Your task to perform on an android device: turn off translation in the chrome app Image 0: 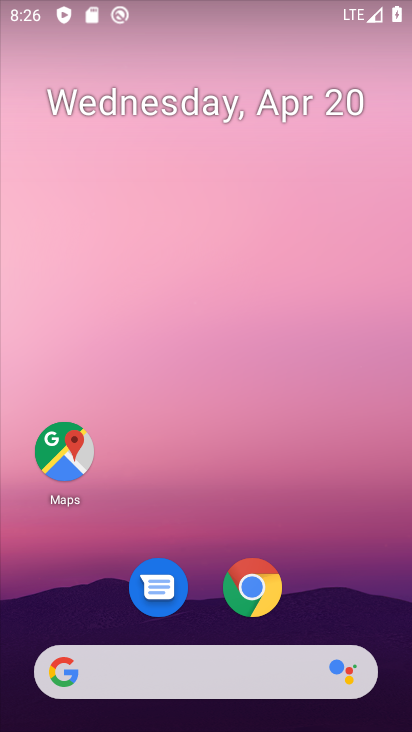
Step 0: drag from (363, 579) to (355, 185)
Your task to perform on an android device: turn off translation in the chrome app Image 1: 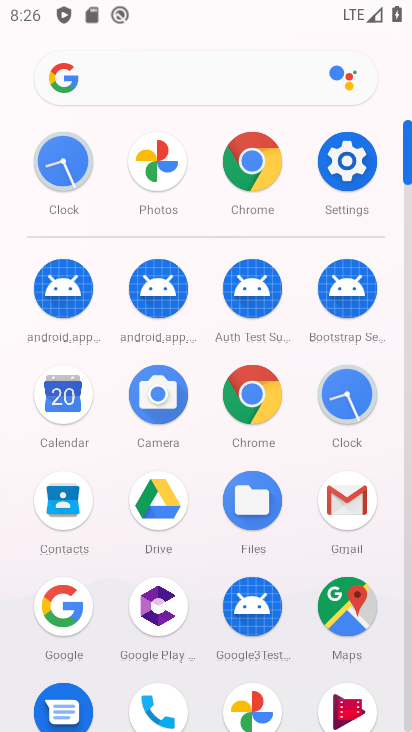
Step 1: click (261, 400)
Your task to perform on an android device: turn off translation in the chrome app Image 2: 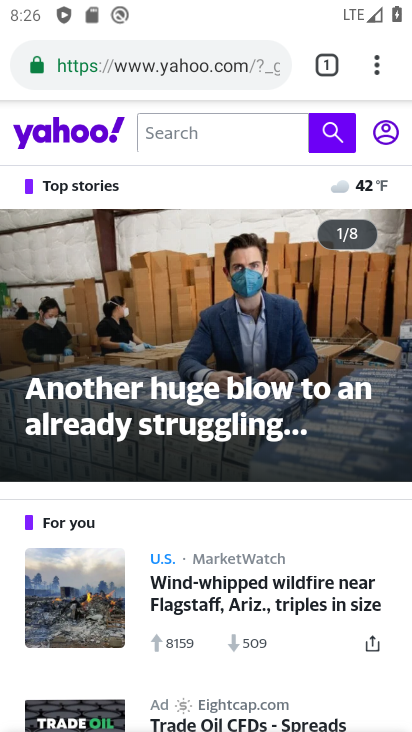
Step 2: click (379, 63)
Your task to perform on an android device: turn off translation in the chrome app Image 3: 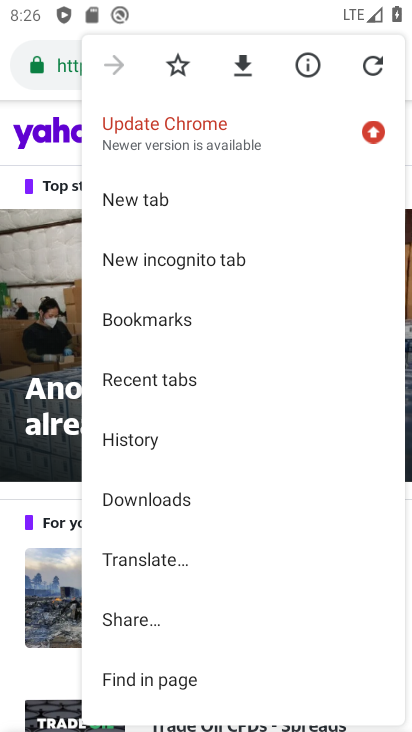
Step 3: drag from (341, 549) to (328, 402)
Your task to perform on an android device: turn off translation in the chrome app Image 4: 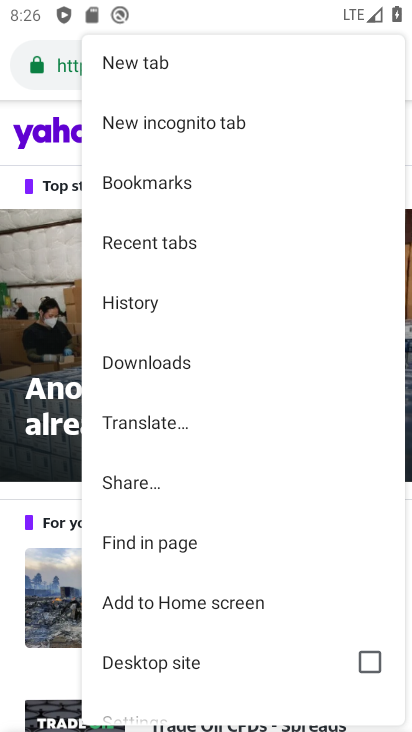
Step 4: drag from (327, 547) to (327, 408)
Your task to perform on an android device: turn off translation in the chrome app Image 5: 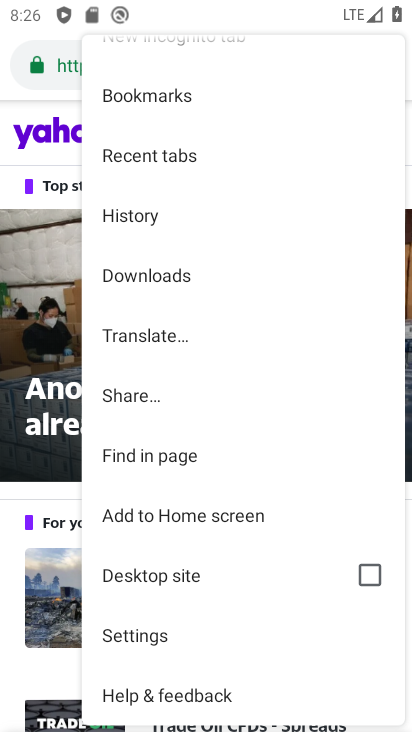
Step 5: click (170, 637)
Your task to perform on an android device: turn off translation in the chrome app Image 6: 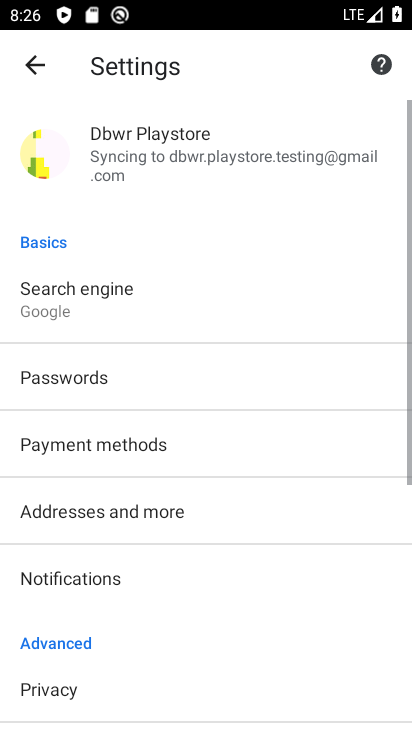
Step 6: drag from (312, 593) to (327, 475)
Your task to perform on an android device: turn off translation in the chrome app Image 7: 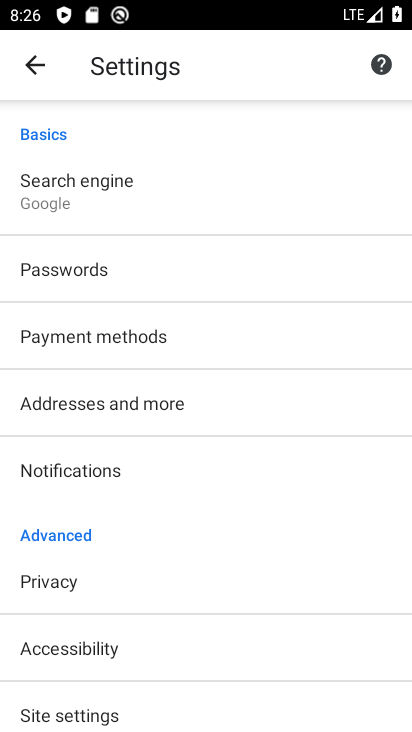
Step 7: drag from (331, 575) to (338, 464)
Your task to perform on an android device: turn off translation in the chrome app Image 8: 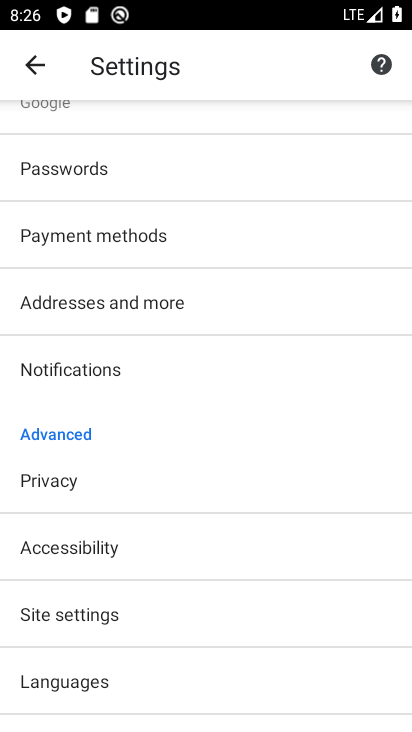
Step 8: drag from (356, 615) to (358, 481)
Your task to perform on an android device: turn off translation in the chrome app Image 9: 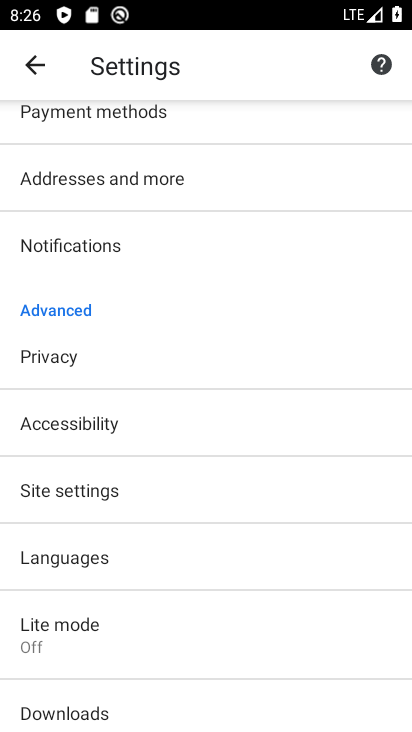
Step 9: drag from (350, 625) to (353, 492)
Your task to perform on an android device: turn off translation in the chrome app Image 10: 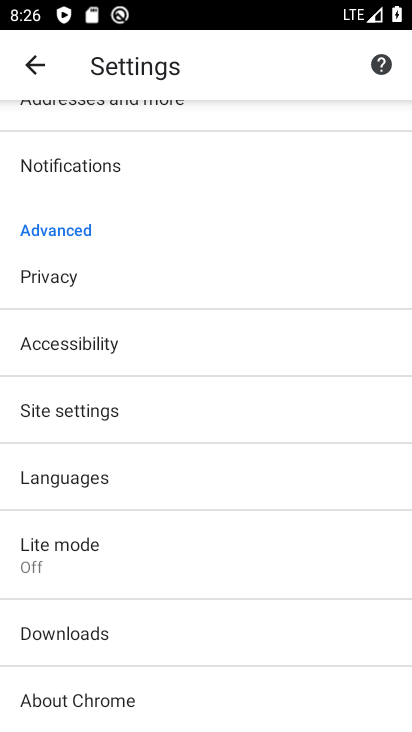
Step 10: drag from (345, 345) to (342, 428)
Your task to perform on an android device: turn off translation in the chrome app Image 11: 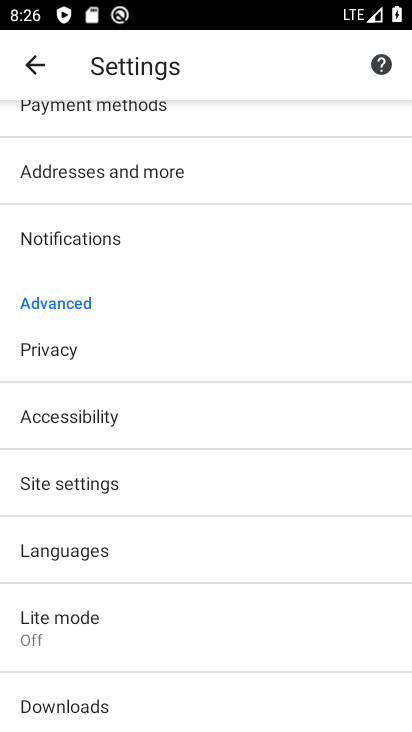
Step 11: click (263, 548)
Your task to perform on an android device: turn off translation in the chrome app Image 12: 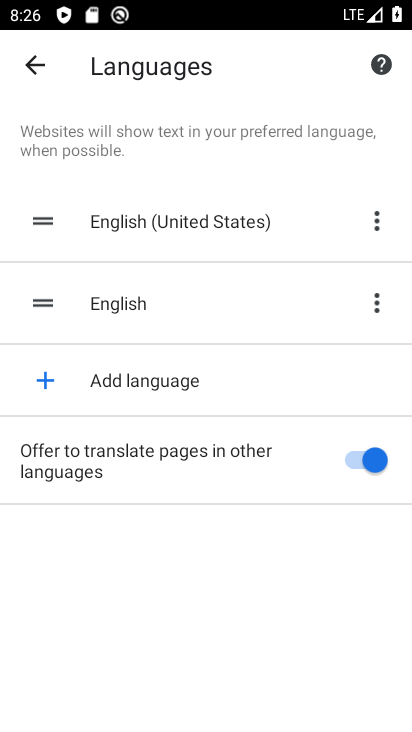
Step 12: click (367, 453)
Your task to perform on an android device: turn off translation in the chrome app Image 13: 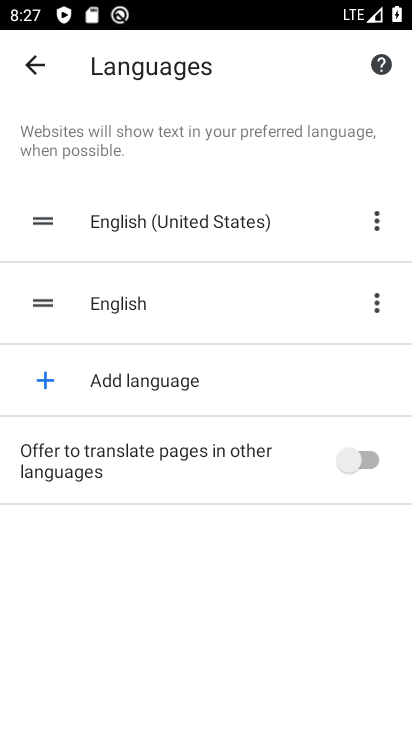
Step 13: task complete